Your task to perform on an android device: Go to calendar. Show me events next week Image 0: 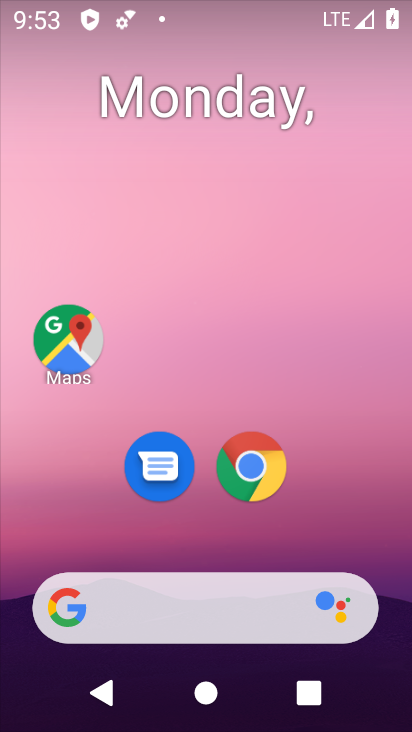
Step 0: drag from (382, 520) to (336, 30)
Your task to perform on an android device: Go to calendar. Show me events next week Image 1: 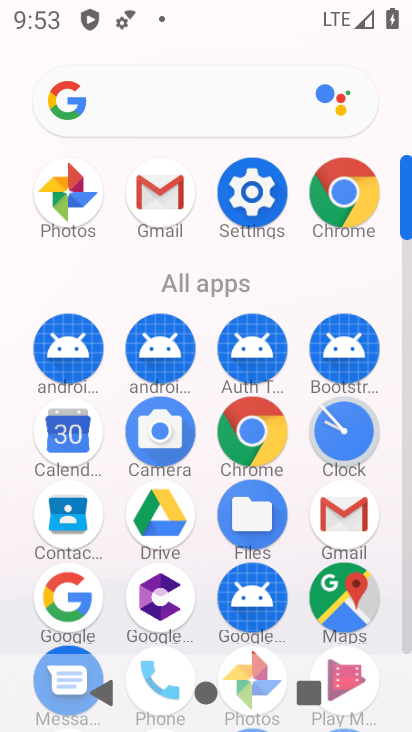
Step 1: click (93, 443)
Your task to perform on an android device: Go to calendar. Show me events next week Image 2: 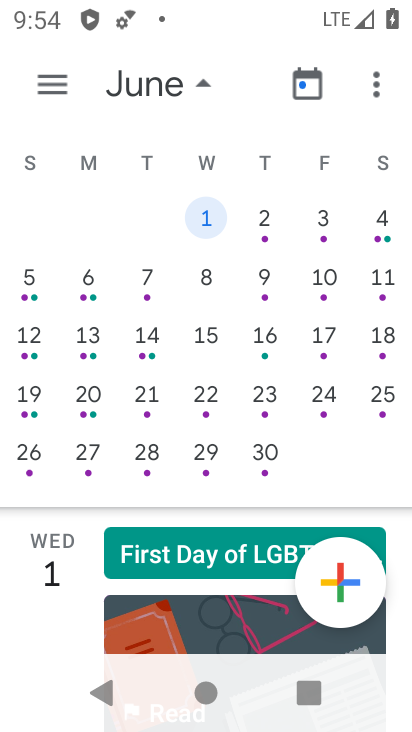
Step 2: task complete